Your task to perform on an android device: check out phone information Image 0: 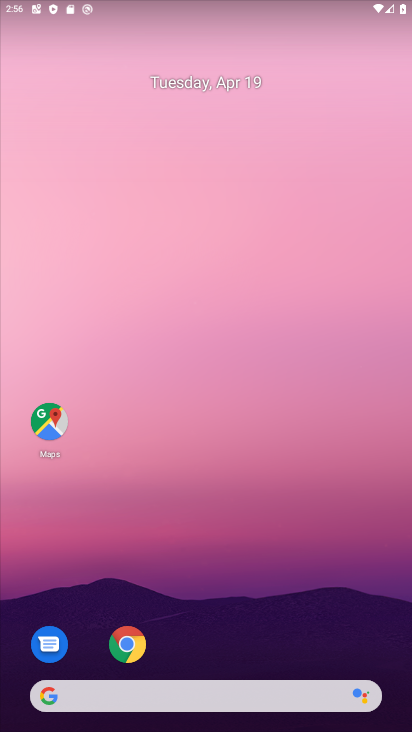
Step 0: drag from (252, 631) to (216, 152)
Your task to perform on an android device: check out phone information Image 1: 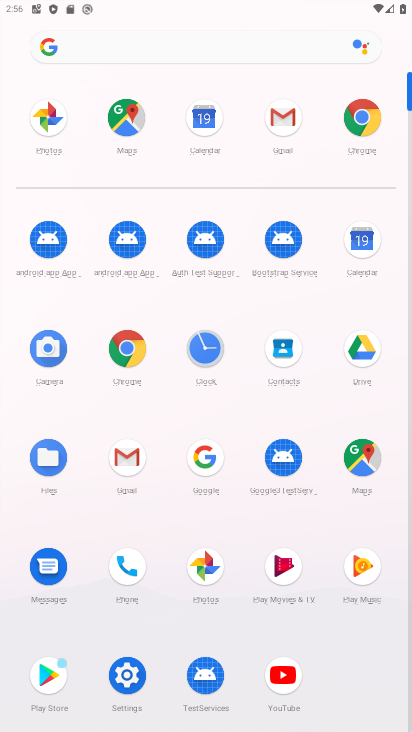
Step 1: click (126, 559)
Your task to perform on an android device: check out phone information Image 2: 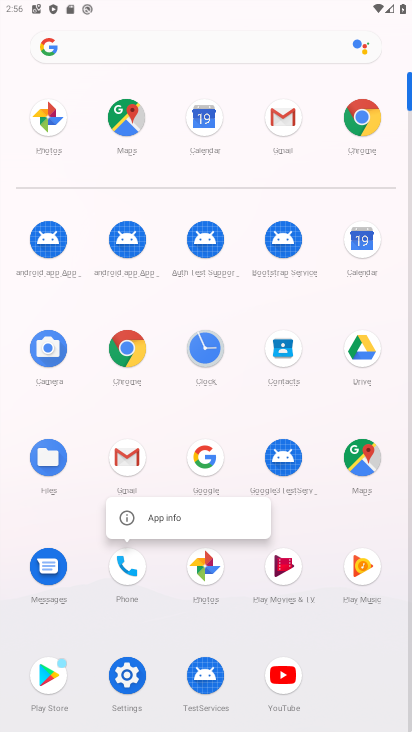
Step 2: click (170, 518)
Your task to perform on an android device: check out phone information Image 3: 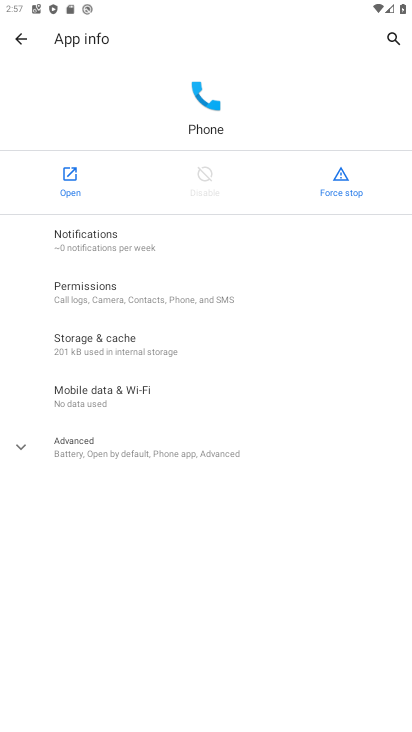
Step 3: task complete